Your task to perform on an android device: Go to notification settings Image 0: 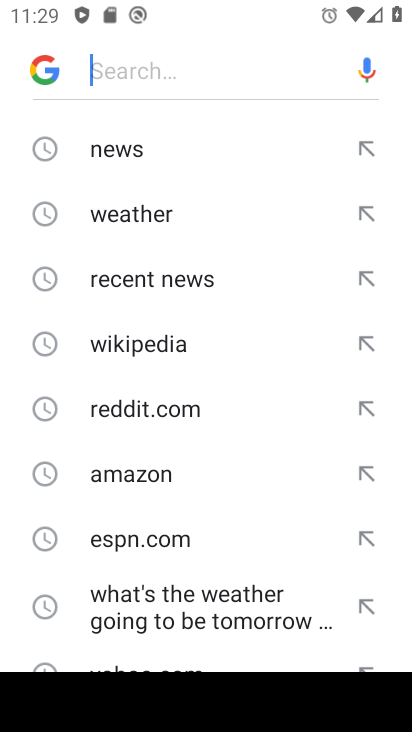
Step 0: press home button
Your task to perform on an android device: Go to notification settings Image 1: 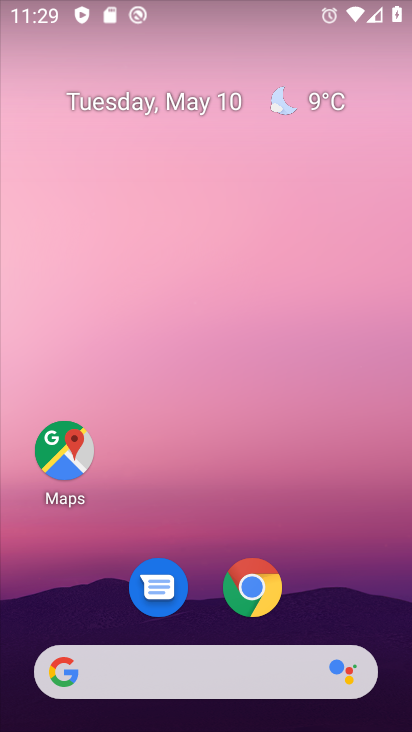
Step 1: drag from (352, 608) to (358, 16)
Your task to perform on an android device: Go to notification settings Image 2: 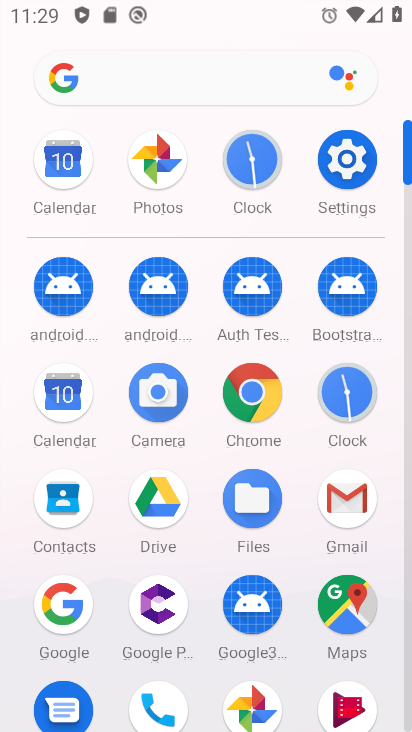
Step 2: click (339, 159)
Your task to perform on an android device: Go to notification settings Image 3: 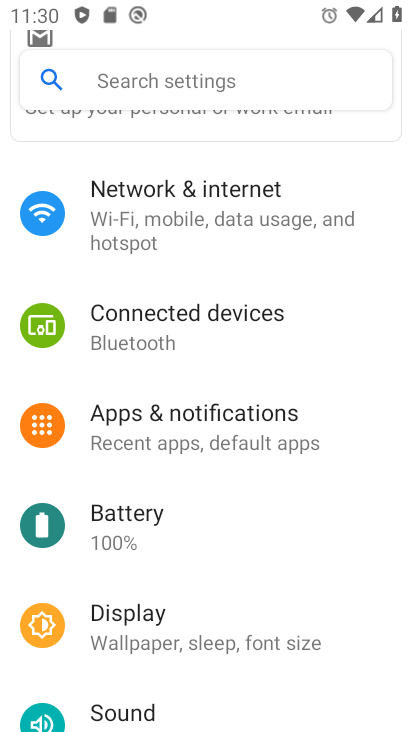
Step 3: click (220, 435)
Your task to perform on an android device: Go to notification settings Image 4: 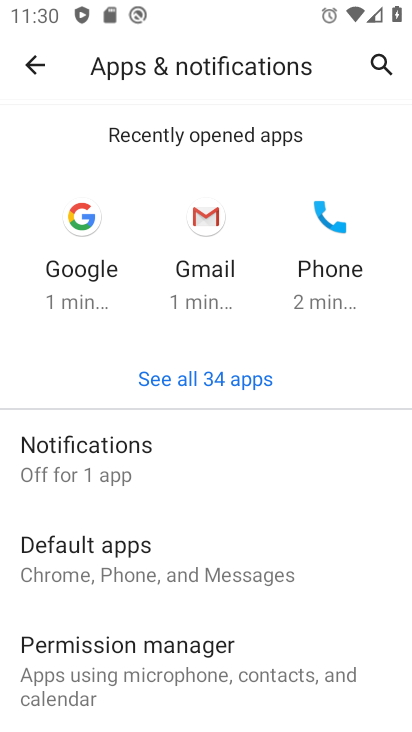
Step 4: task complete